Your task to perform on an android device: toggle notifications settings in the gmail app Image 0: 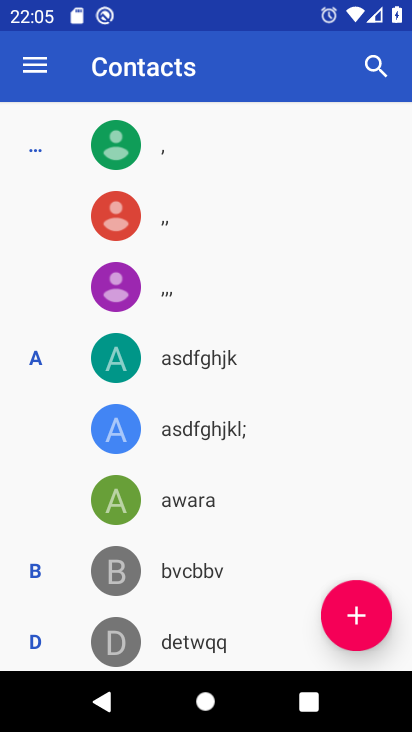
Step 0: press home button
Your task to perform on an android device: toggle notifications settings in the gmail app Image 1: 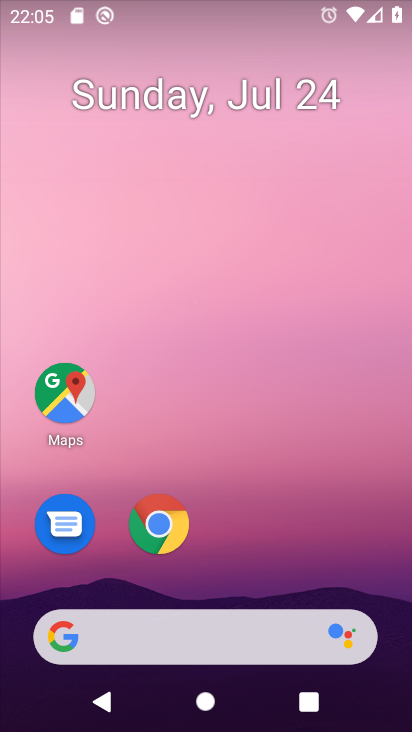
Step 1: drag from (283, 540) to (348, 38)
Your task to perform on an android device: toggle notifications settings in the gmail app Image 2: 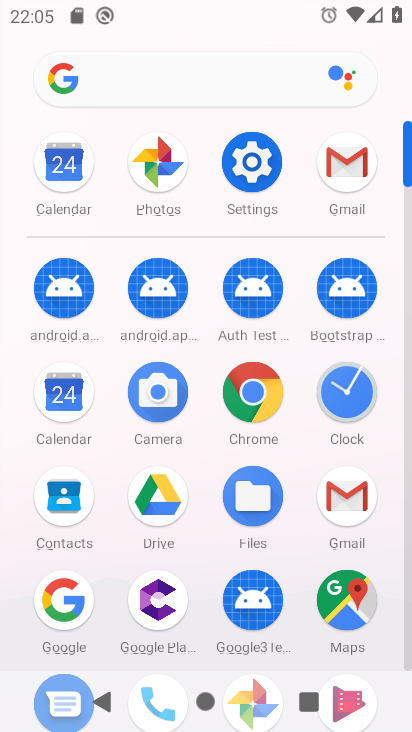
Step 2: click (337, 174)
Your task to perform on an android device: toggle notifications settings in the gmail app Image 3: 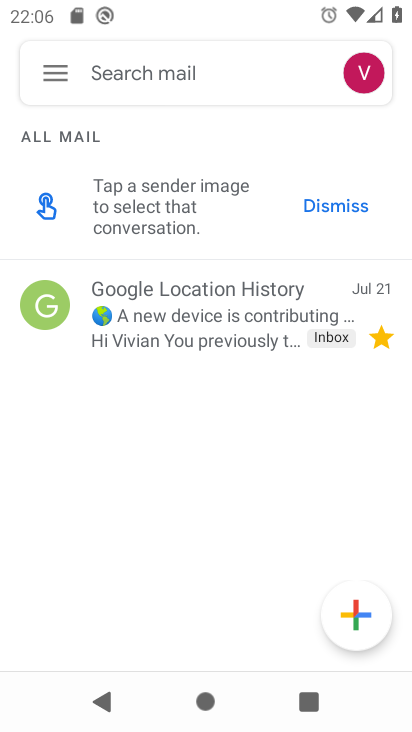
Step 3: click (59, 74)
Your task to perform on an android device: toggle notifications settings in the gmail app Image 4: 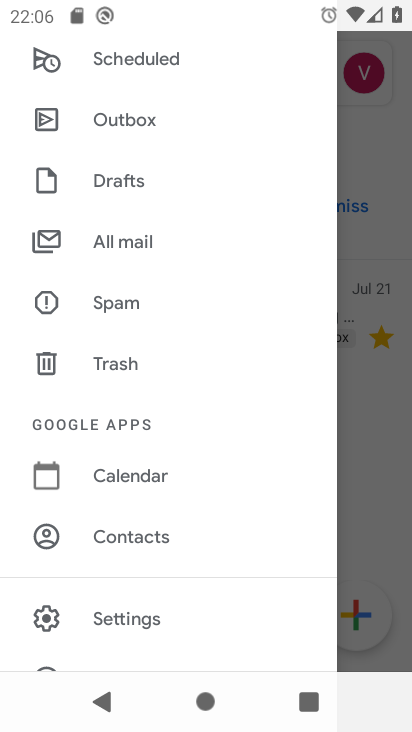
Step 4: click (120, 610)
Your task to perform on an android device: toggle notifications settings in the gmail app Image 5: 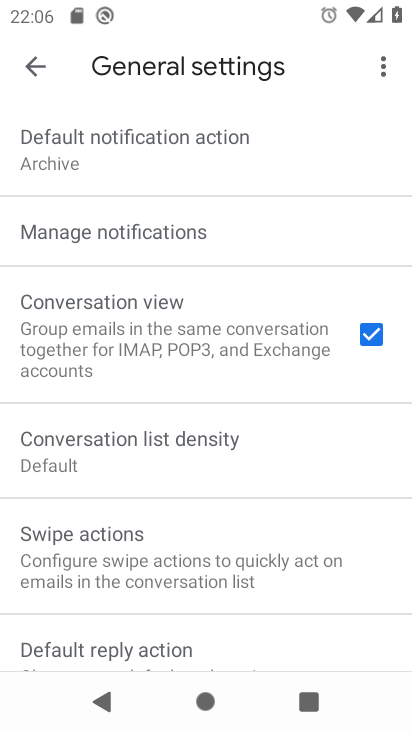
Step 5: click (286, 233)
Your task to perform on an android device: toggle notifications settings in the gmail app Image 6: 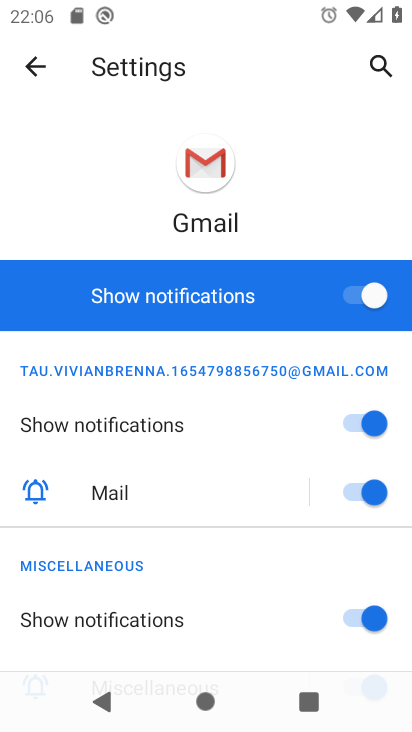
Step 6: click (363, 296)
Your task to perform on an android device: toggle notifications settings in the gmail app Image 7: 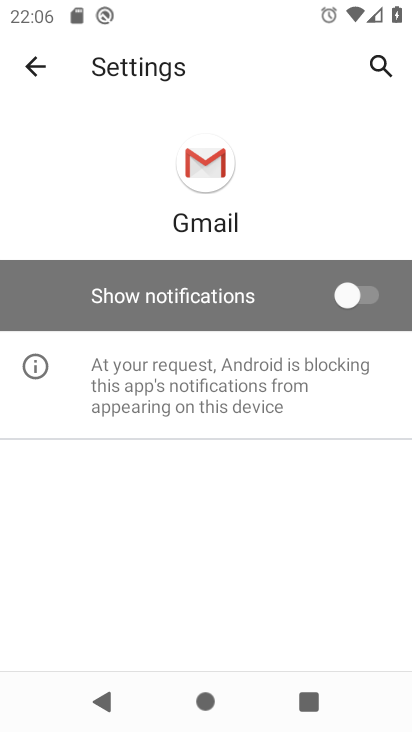
Step 7: task complete